Your task to perform on an android device: Empty the shopping cart on amazon.com. Image 0: 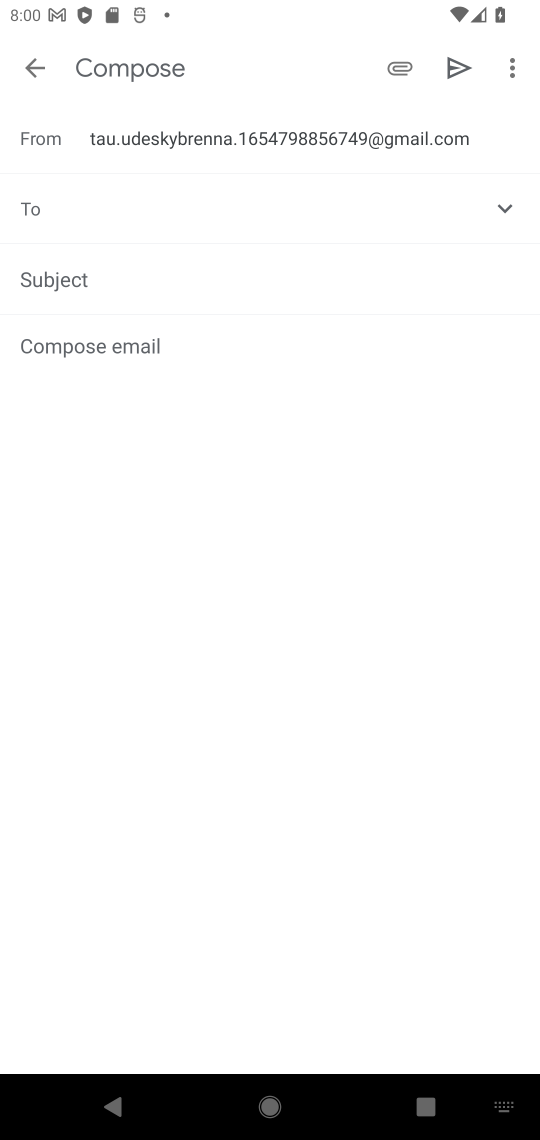
Step 0: press home button
Your task to perform on an android device: Empty the shopping cart on amazon.com. Image 1: 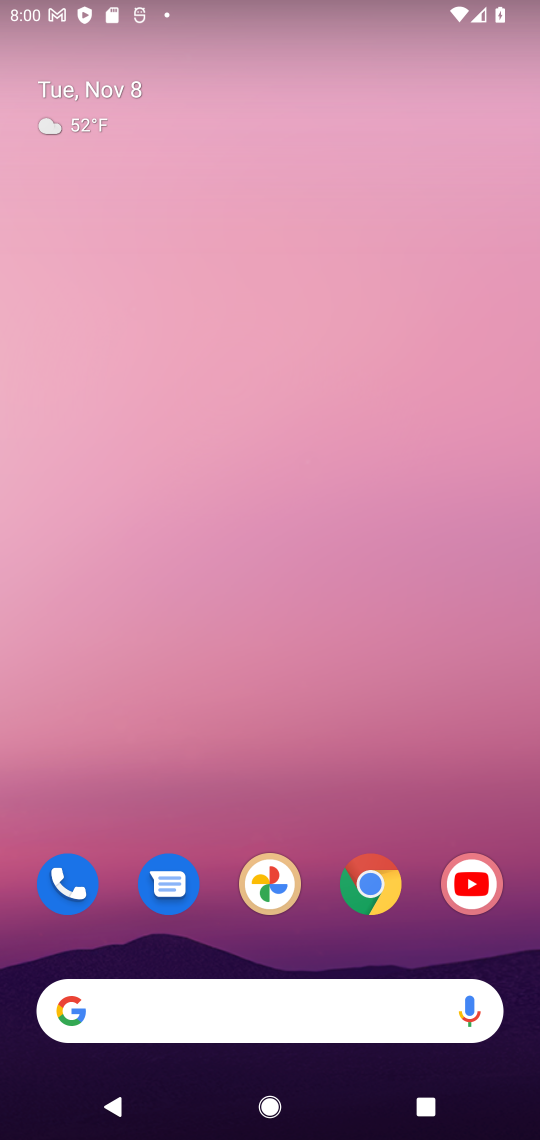
Step 1: drag from (252, 912) to (344, 120)
Your task to perform on an android device: Empty the shopping cart on amazon.com. Image 2: 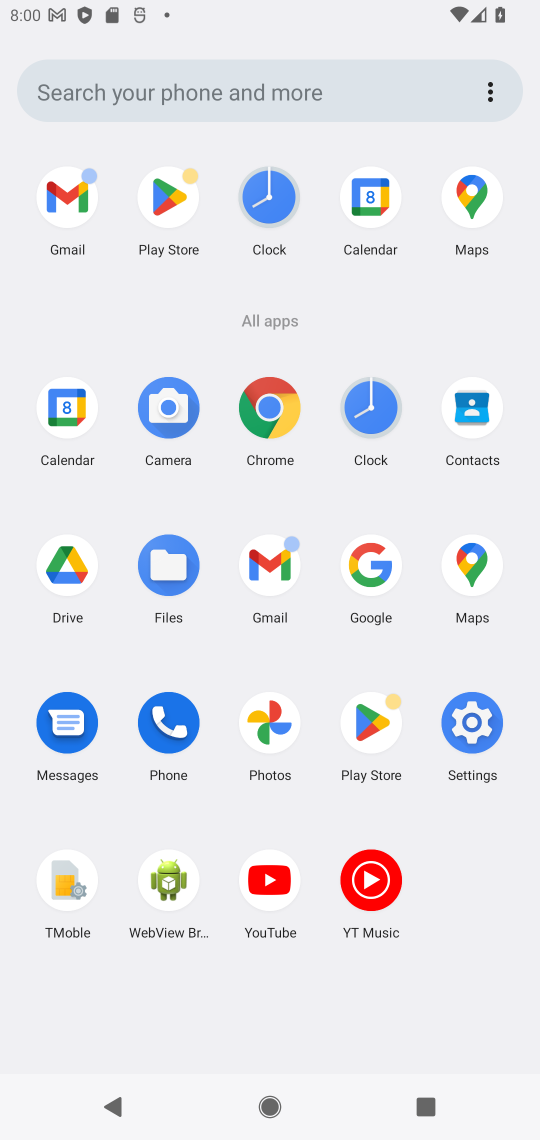
Step 2: click (392, 541)
Your task to perform on an android device: Empty the shopping cart on amazon.com. Image 3: 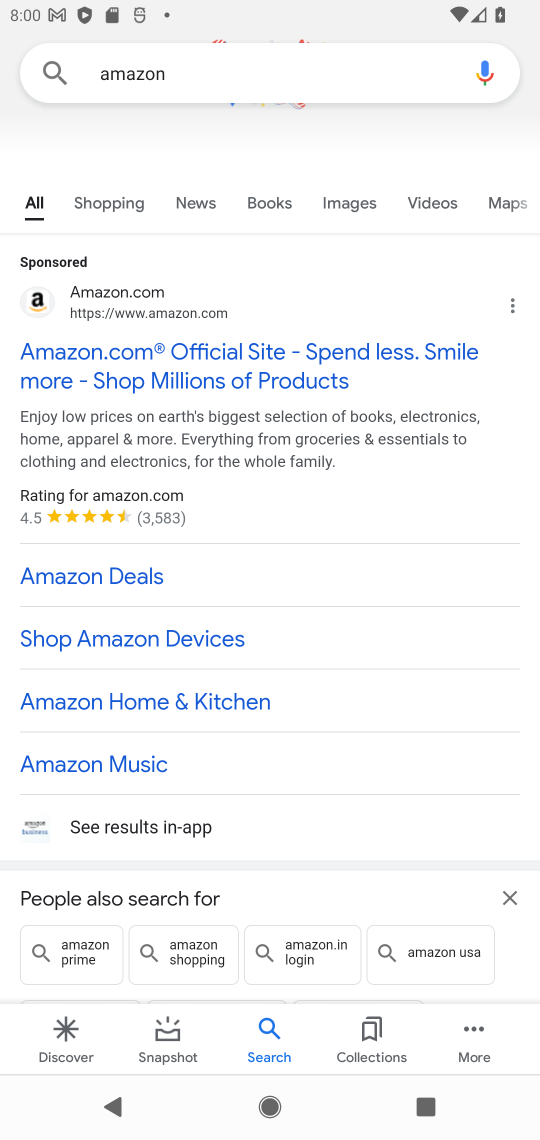
Step 3: click (329, 390)
Your task to perform on an android device: Empty the shopping cart on amazon.com. Image 4: 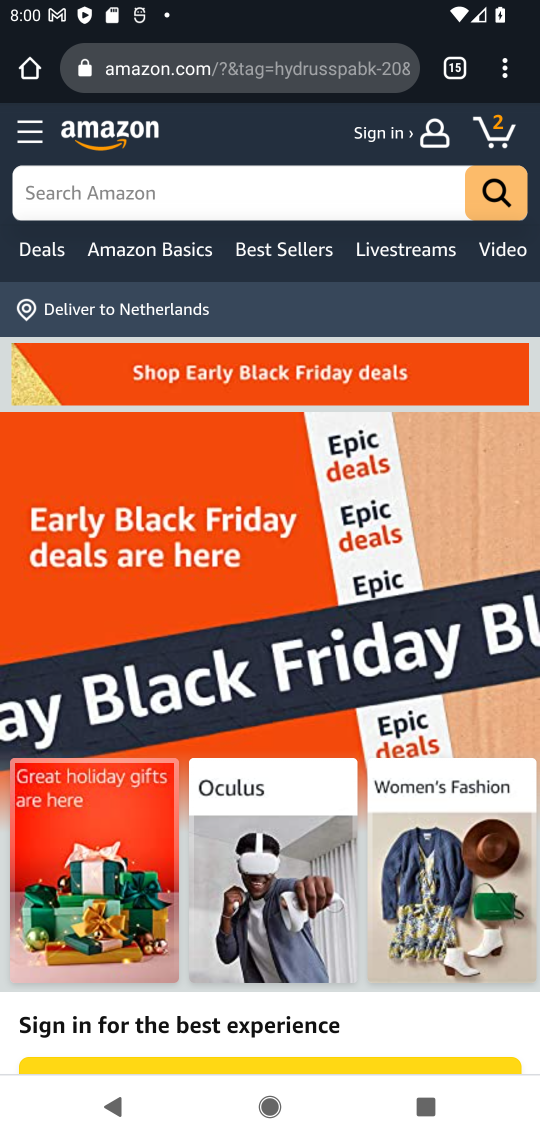
Step 4: click (504, 132)
Your task to perform on an android device: Empty the shopping cart on amazon.com. Image 5: 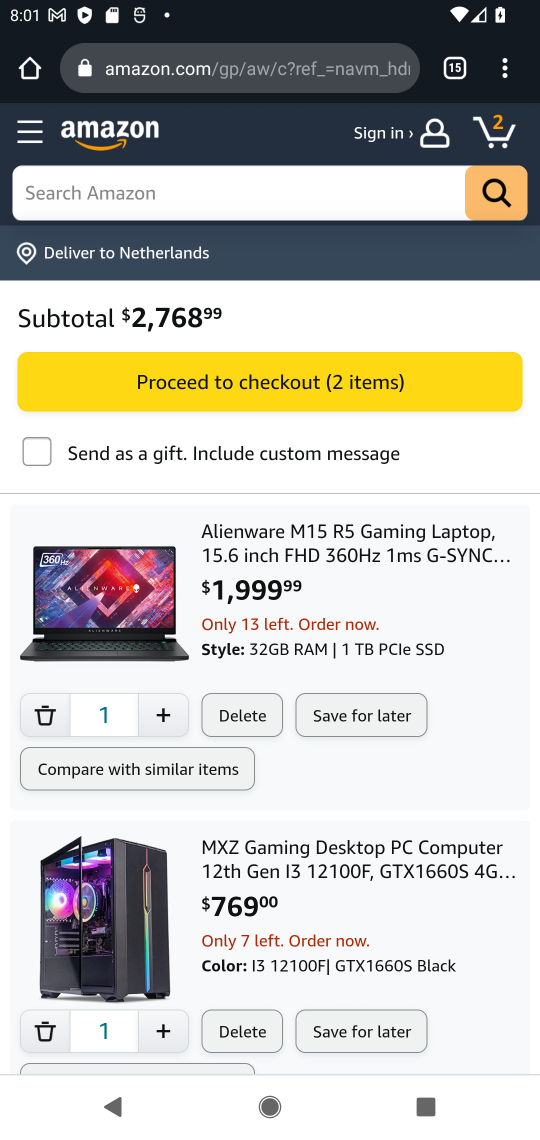
Step 5: click (506, 143)
Your task to perform on an android device: Empty the shopping cart on amazon.com. Image 6: 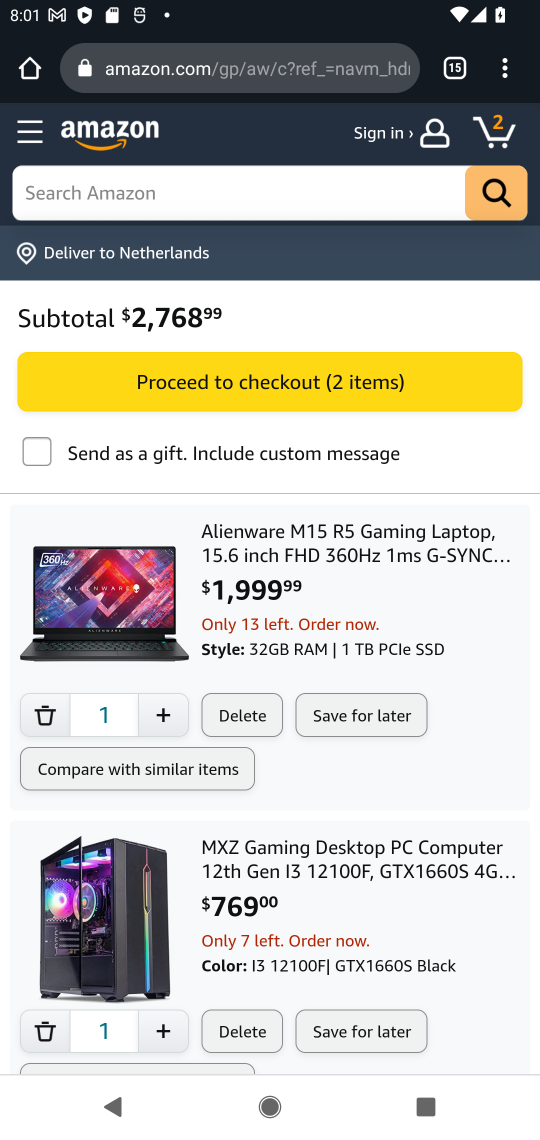
Step 6: click (539, 274)
Your task to perform on an android device: Empty the shopping cart on amazon.com. Image 7: 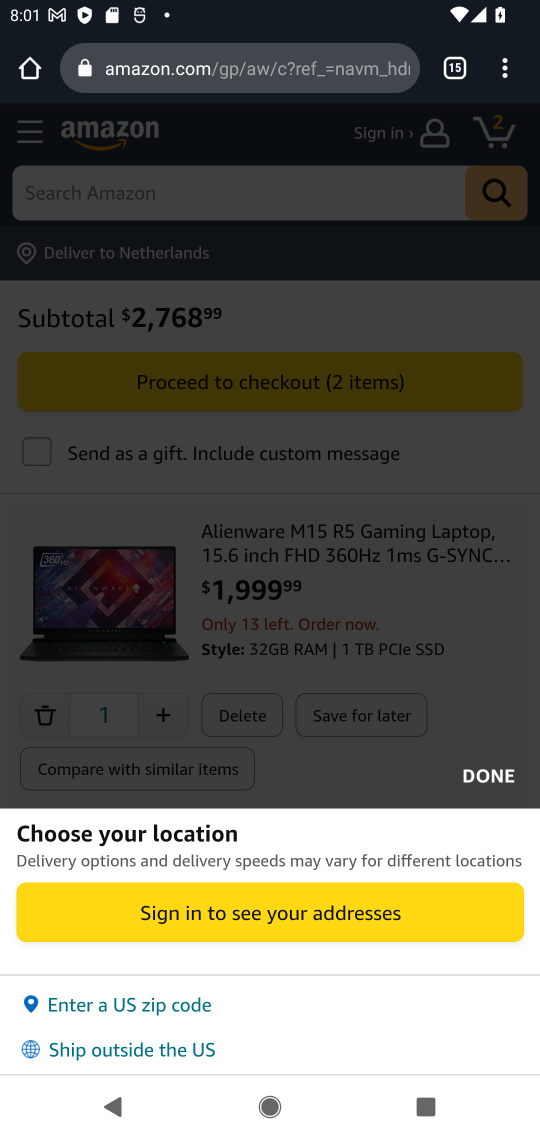
Step 7: click (503, 787)
Your task to perform on an android device: Empty the shopping cart on amazon.com. Image 8: 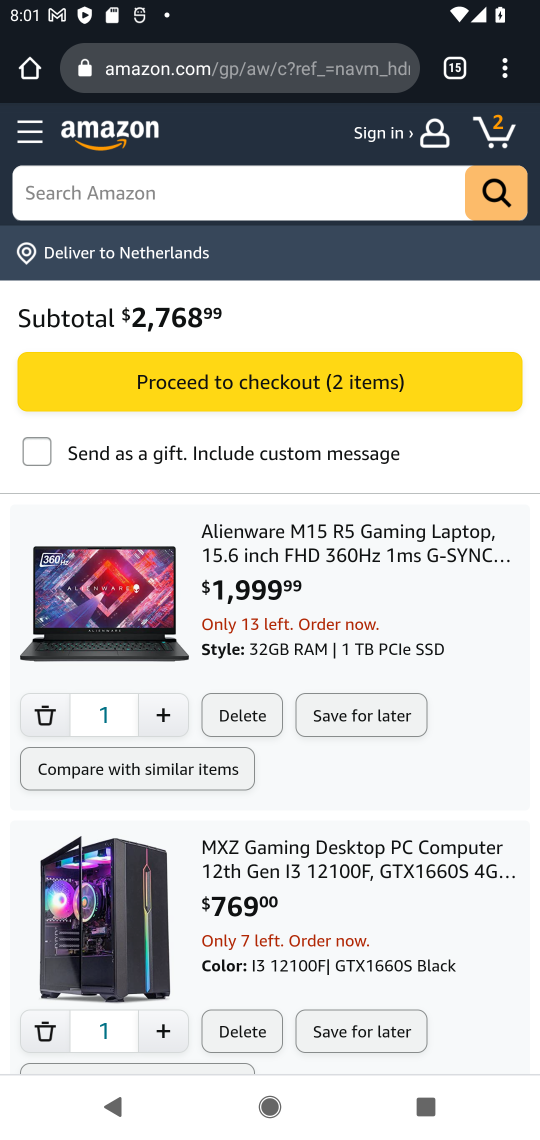
Step 8: click (475, 719)
Your task to perform on an android device: Empty the shopping cart on amazon.com. Image 9: 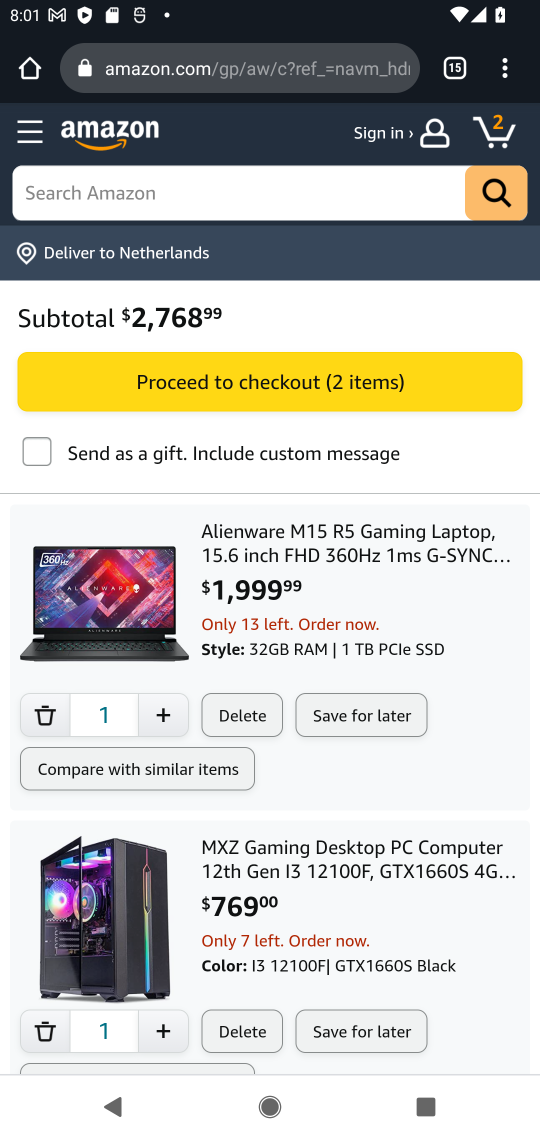
Step 9: click (256, 712)
Your task to perform on an android device: Empty the shopping cart on amazon.com. Image 10: 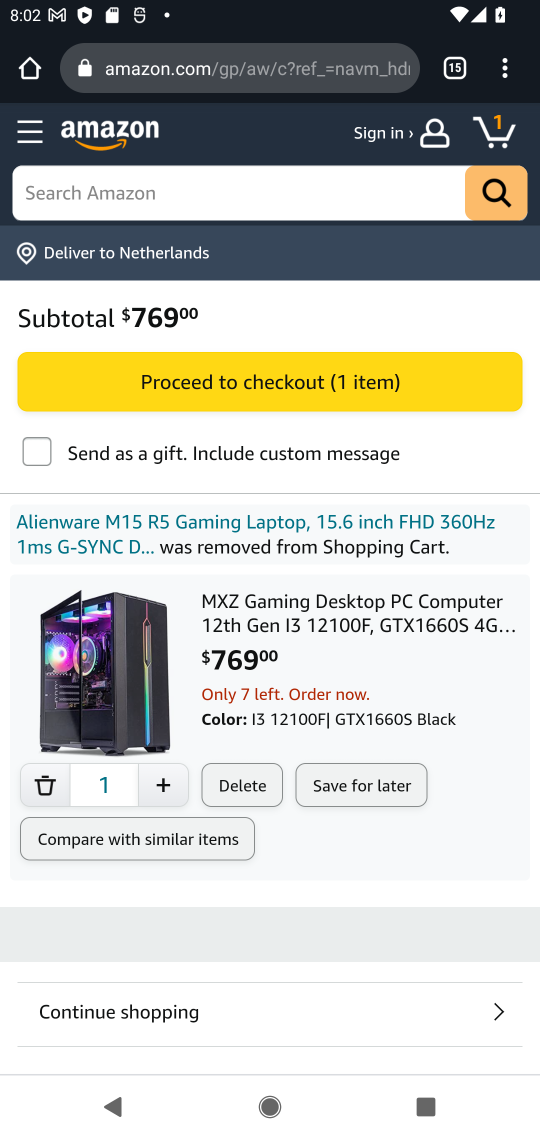
Step 10: click (246, 784)
Your task to perform on an android device: Empty the shopping cart on amazon.com. Image 11: 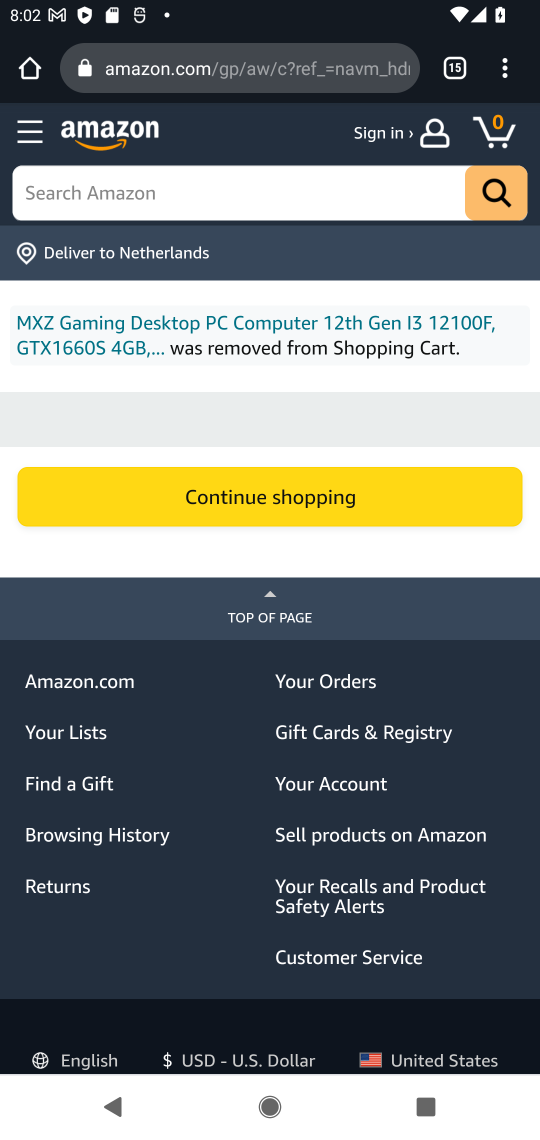
Step 11: task complete